Your task to perform on an android device: choose inbox layout in the gmail app Image 0: 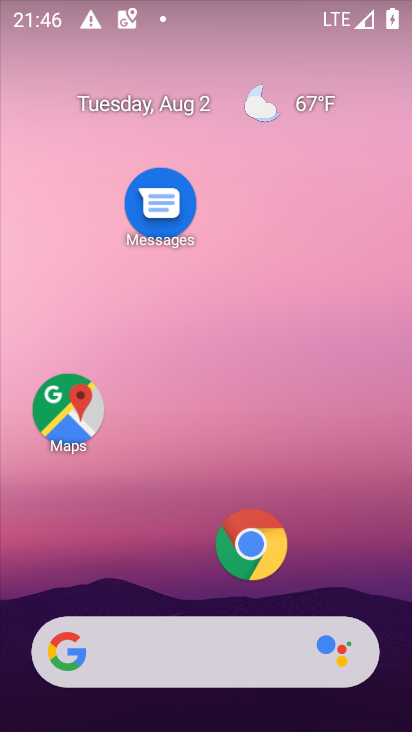
Step 0: drag from (183, 571) to (203, 219)
Your task to perform on an android device: choose inbox layout in the gmail app Image 1: 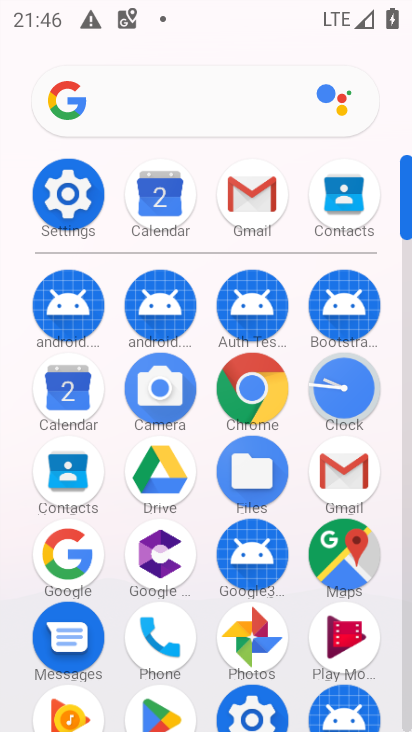
Step 1: click (255, 226)
Your task to perform on an android device: choose inbox layout in the gmail app Image 2: 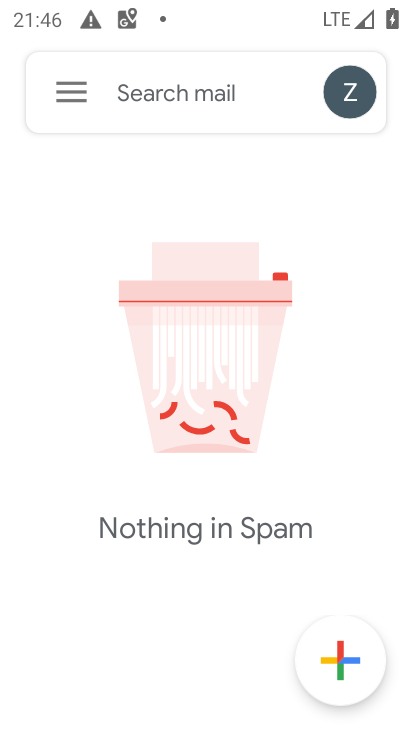
Step 2: click (62, 94)
Your task to perform on an android device: choose inbox layout in the gmail app Image 3: 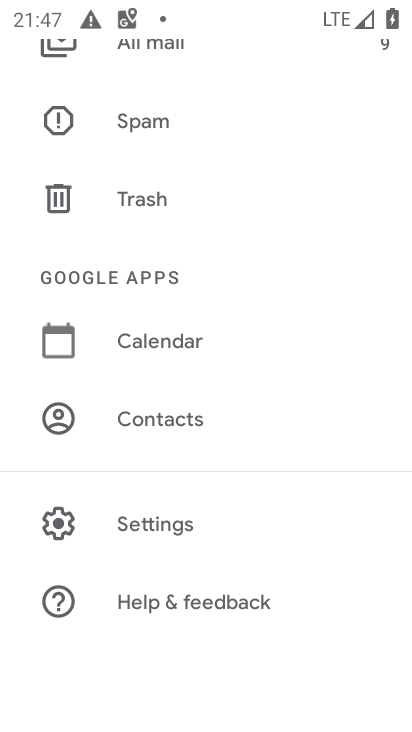
Step 3: click (171, 512)
Your task to perform on an android device: choose inbox layout in the gmail app Image 4: 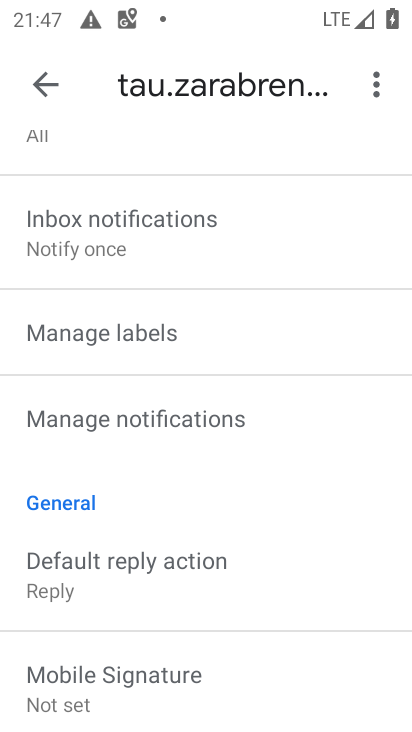
Step 4: drag from (171, 227) to (182, 556)
Your task to perform on an android device: choose inbox layout in the gmail app Image 5: 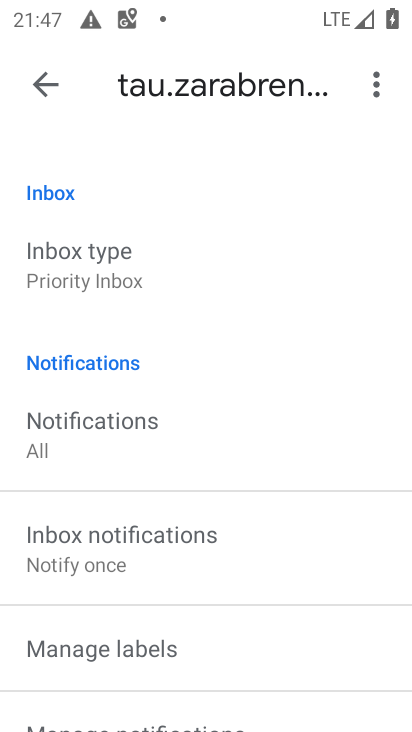
Step 5: click (149, 260)
Your task to perform on an android device: choose inbox layout in the gmail app Image 6: 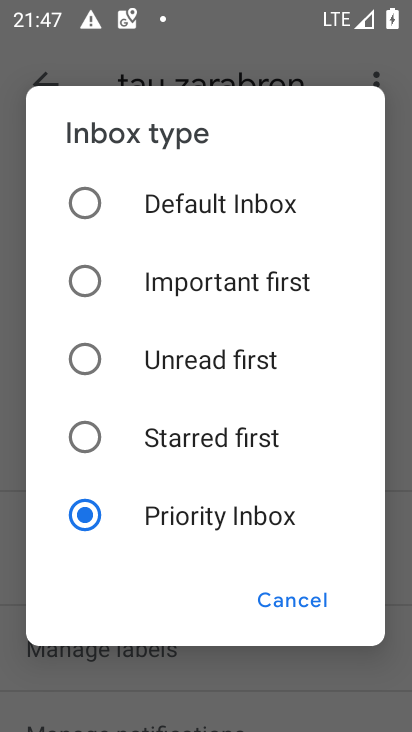
Step 6: click (161, 214)
Your task to perform on an android device: choose inbox layout in the gmail app Image 7: 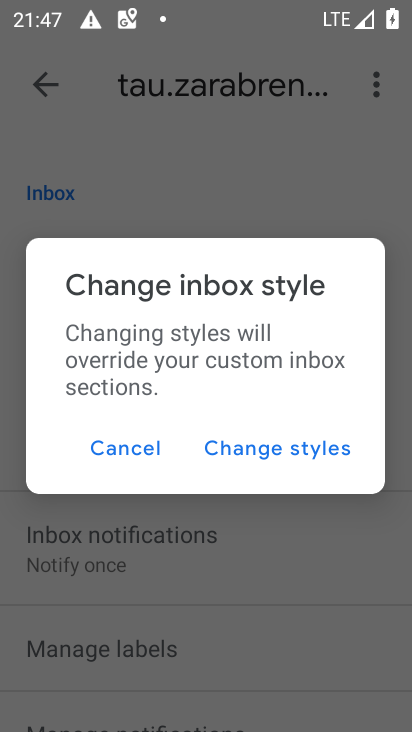
Step 7: click (287, 443)
Your task to perform on an android device: choose inbox layout in the gmail app Image 8: 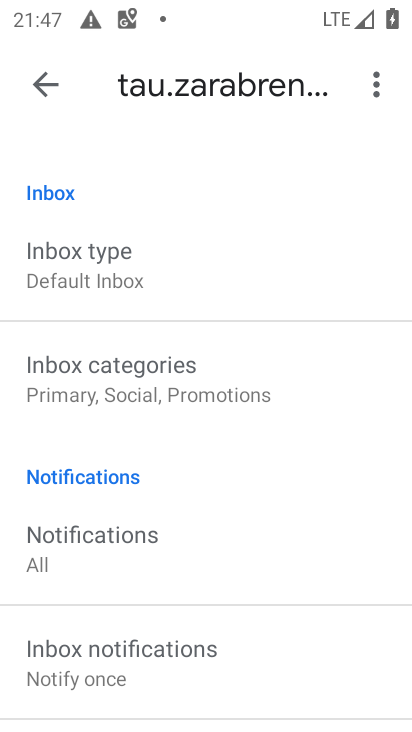
Step 8: task complete